Your task to perform on an android device: delete a single message in the gmail app Image 0: 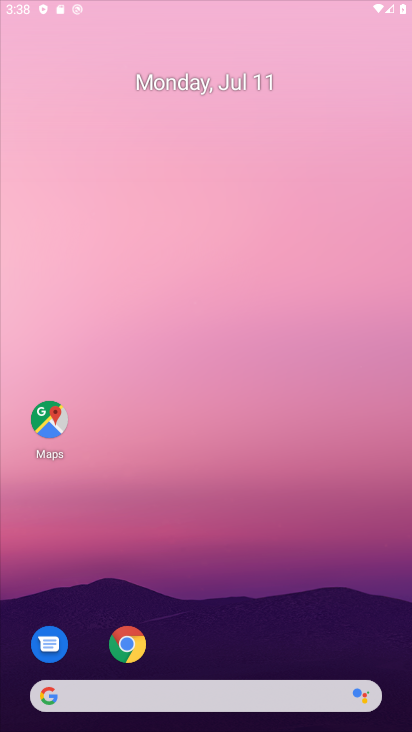
Step 0: press home button
Your task to perform on an android device: delete a single message in the gmail app Image 1: 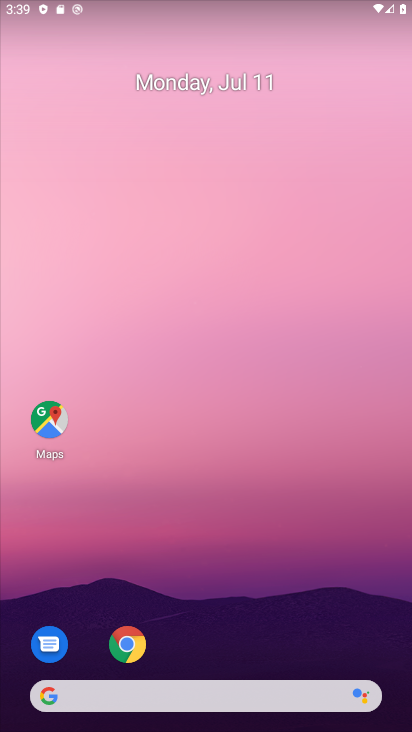
Step 1: drag from (223, 661) to (217, 130)
Your task to perform on an android device: delete a single message in the gmail app Image 2: 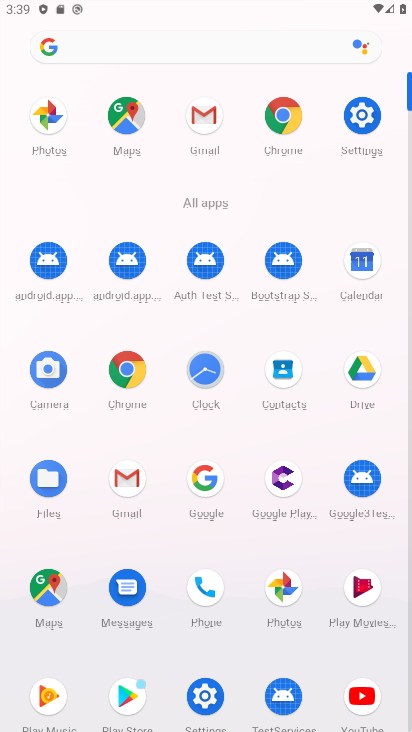
Step 2: click (204, 113)
Your task to perform on an android device: delete a single message in the gmail app Image 3: 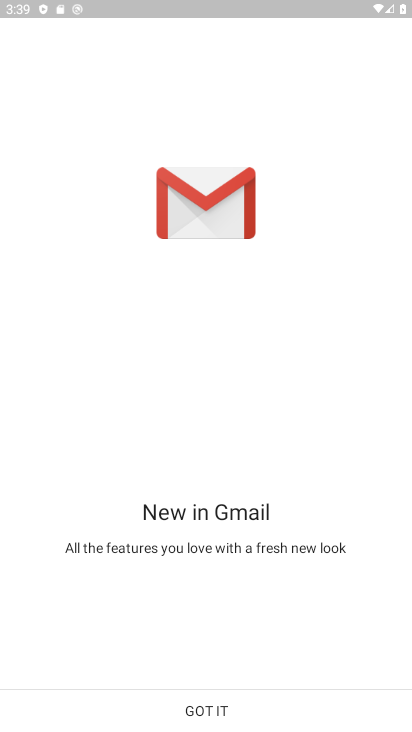
Step 3: click (212, 717)
Your task to perform on an android device: delete a single message in the gmail app Image 4: 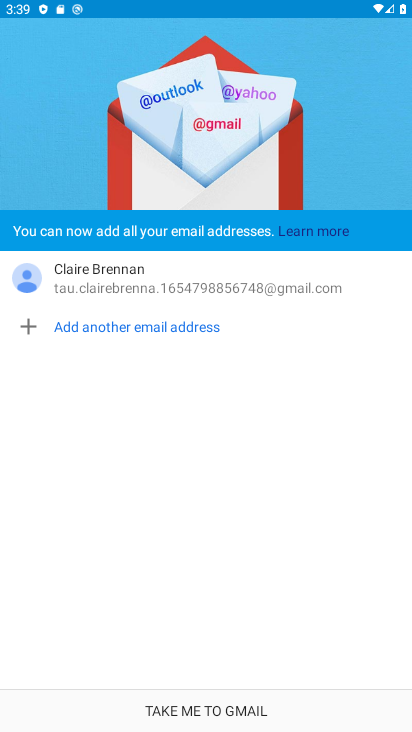
Step 4: click (201, 716)
Your task to perform on an android device: delete a single message in the gmail app Image 5: 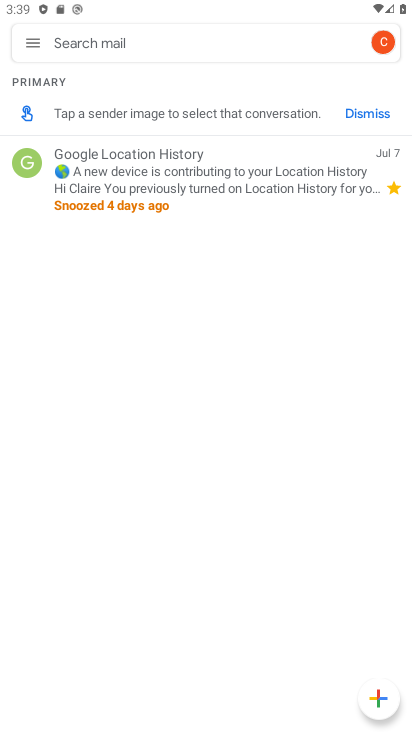
Step 5: click (28, 159)
Your task to perform on an android device: delete a single message in the gmail app Image 6: 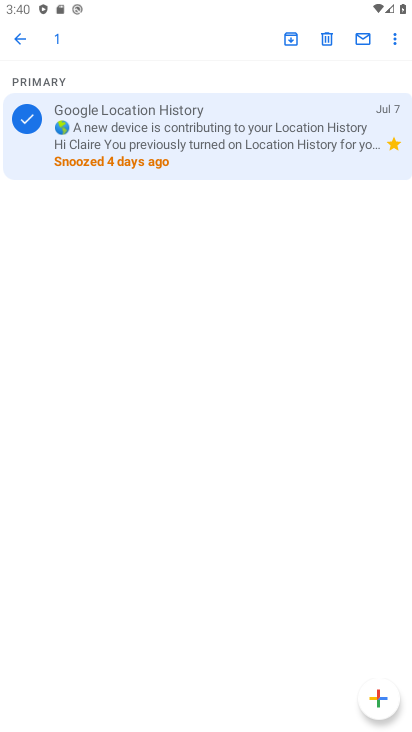
Step 6: click (325, 36)
Your task to perform on an android device: delete a single message in the gmail app Image 7: 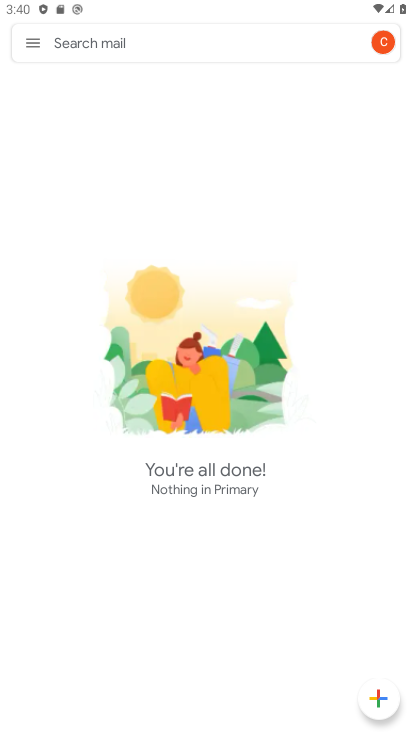
Step 7: task complete